Your task to perform on an android device: turn off sleep mode Image 0: 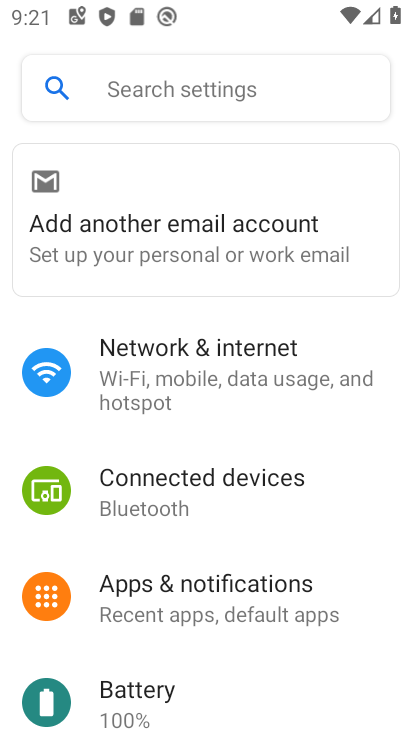
Step 0: drag from (357, 670) to (362, 325)
Your task to perform on an android device: turn off sleep mode Image 1: 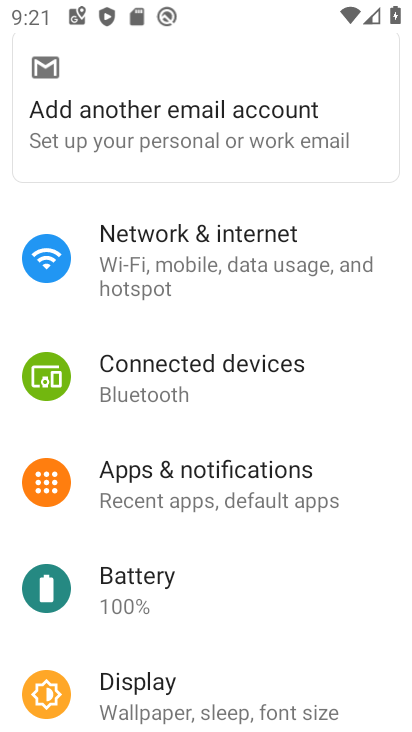
Step 1: click (148, 680)
Your task to perform on an android device: turn off sleep mode Image 2: 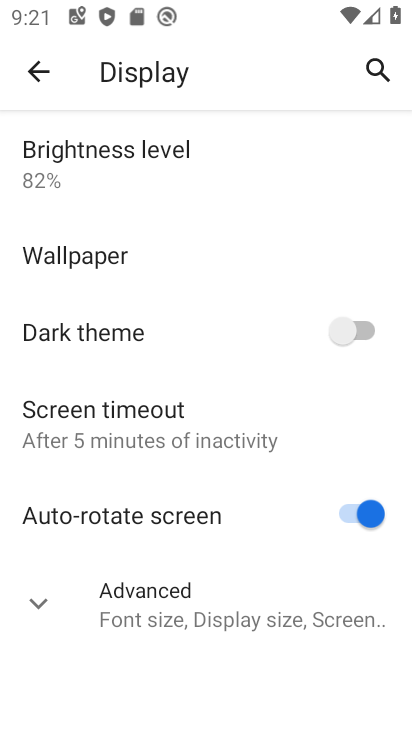
Step 2: click (59, 603)
Your task to perform on an android device: turn off sleep mode Image 3: 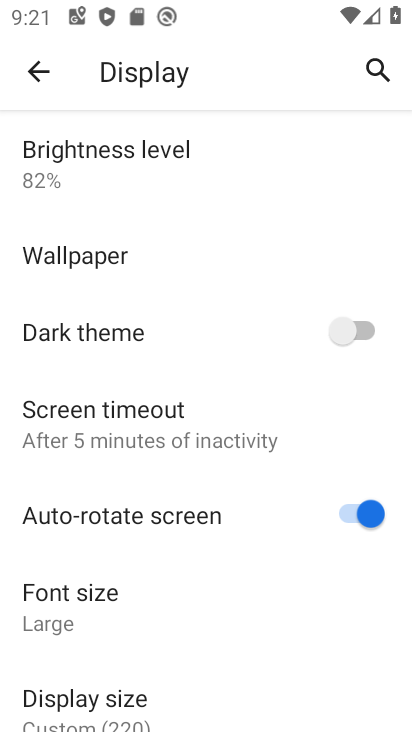
Step 3: drag from (219, 654) to (226, 311)
Your task to perform on an android device: turn off sleep mode Image 4: 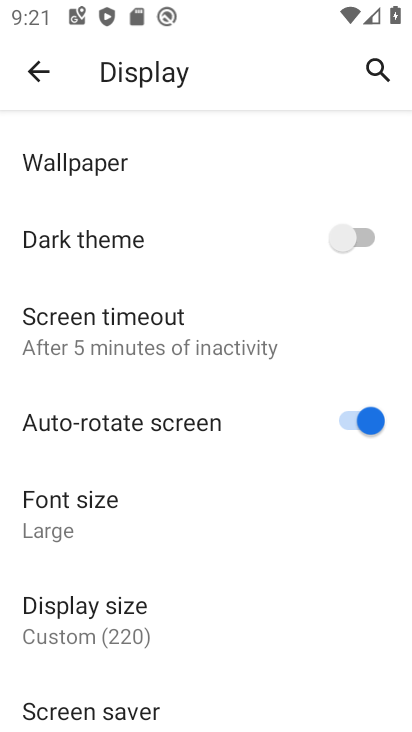
Step 4: click (92, 330)
Your task to perform on an android device: turn off sleep mode Image 5: 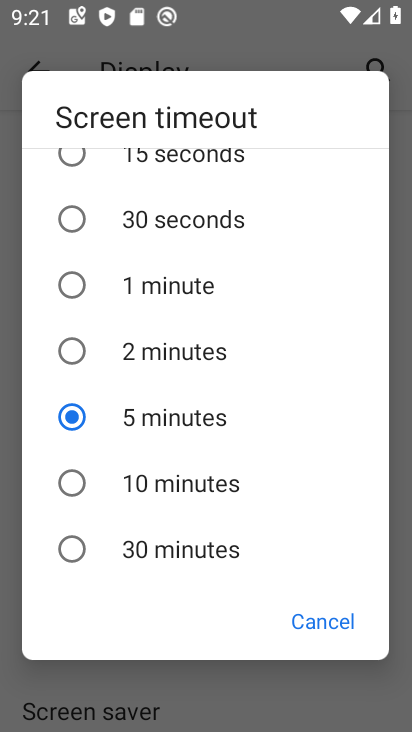
Step 5: task complete